Your task to perform on an android device: Open the stopwatch Image 0: 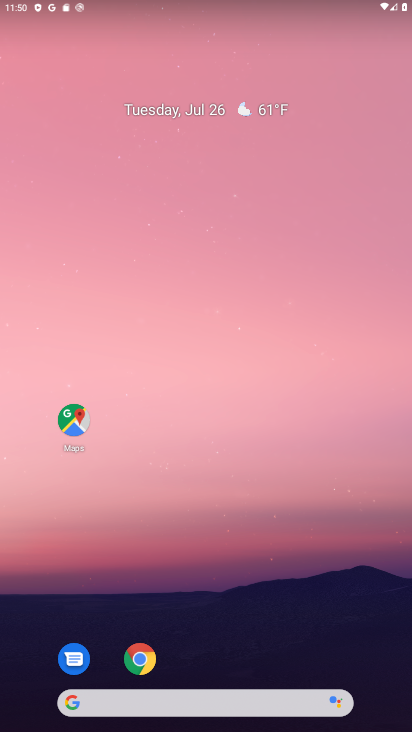
Step 0: press home button
Your task to perform on an android device: Open the stopwatch Image 1: 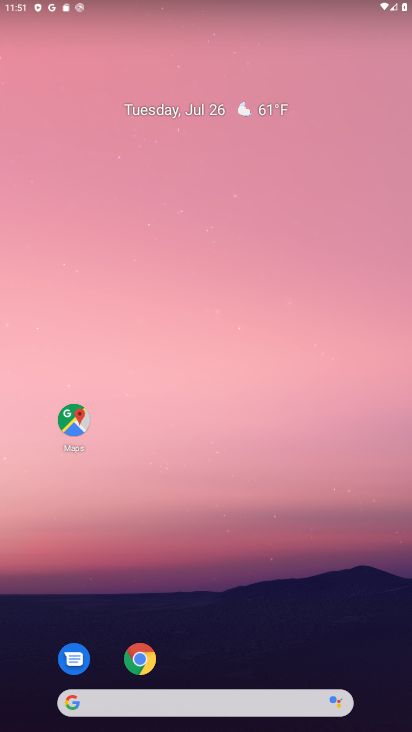
Step 1: drag from (221, 667) to (233, 80)
Your task to perform on an android device: Open the stopwatch Image 2: 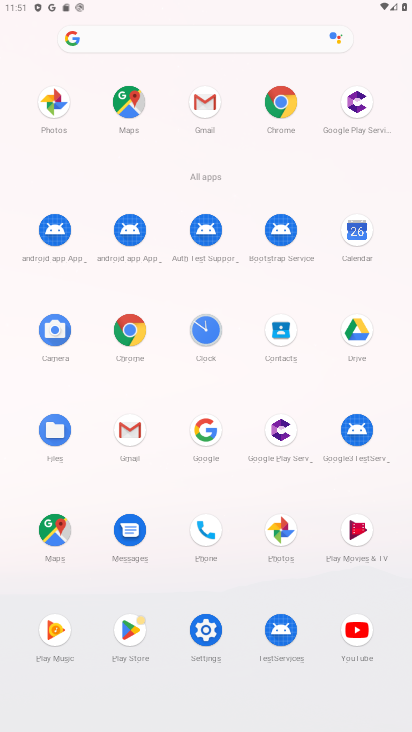
Step 2: click (206, 329)
Your task to perform on an android device: Open the stopwatch Image 3: 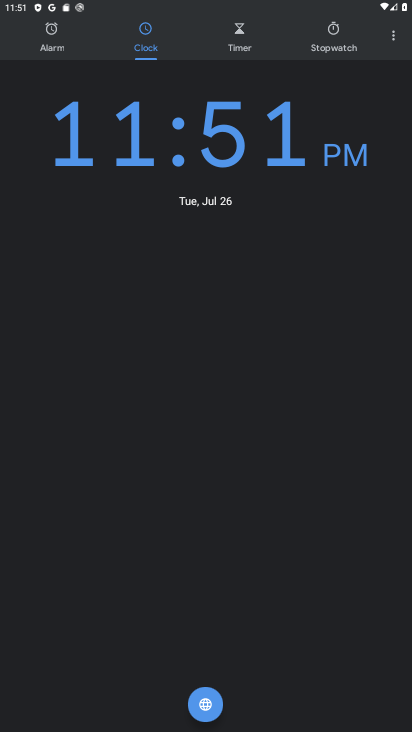
Step 3: click (332, 31)
Your task to perform on an android device: Open the stopwatch Image 4: 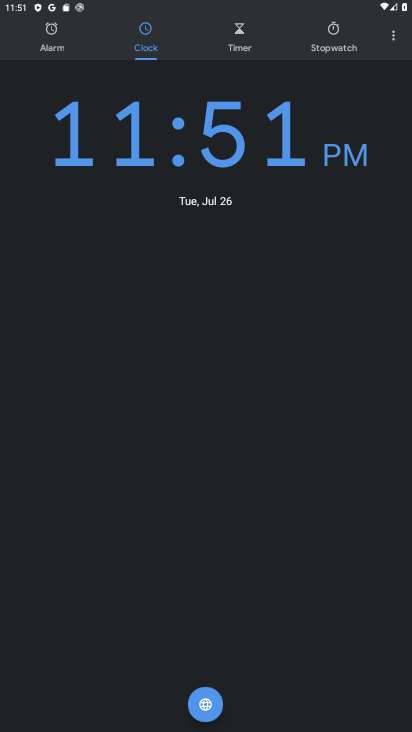
Step 4: click (335, 35)
Your task to perform on an android device: Open the stopwatch Image 5: 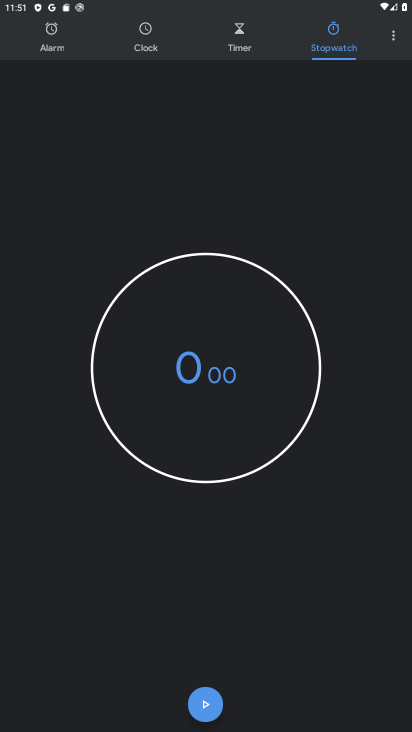
Step 5: click (201, 698)
Your task to perform on an android device: Open the stopwatch Image 6: 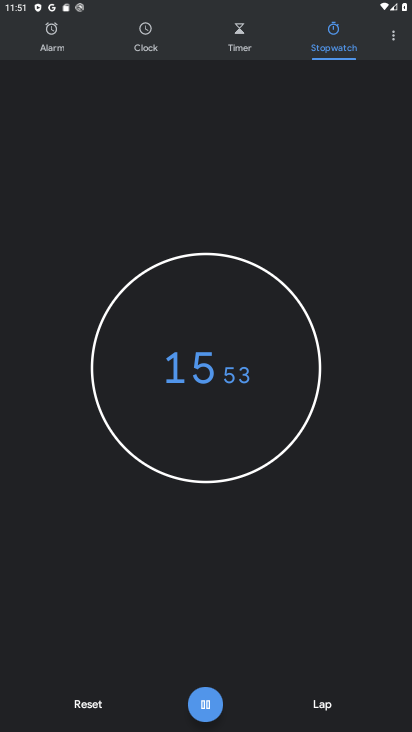
Step 6: task complete